Your task to perform on an android device: Open Yahoo.com Image 0: 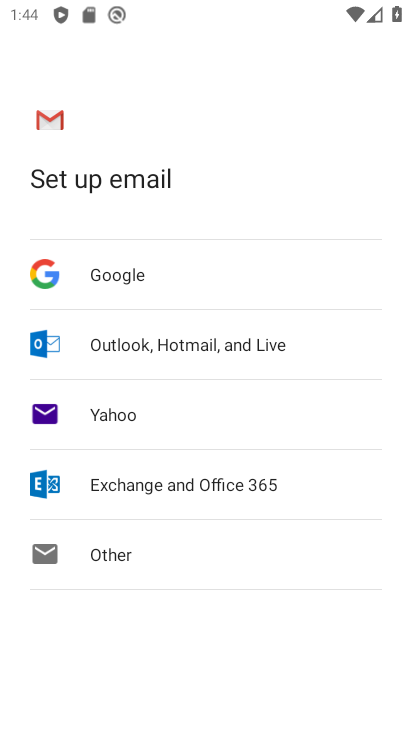
Step 0: press home button
Your task to perform on an android device: Open Yahoo.com Image 1: 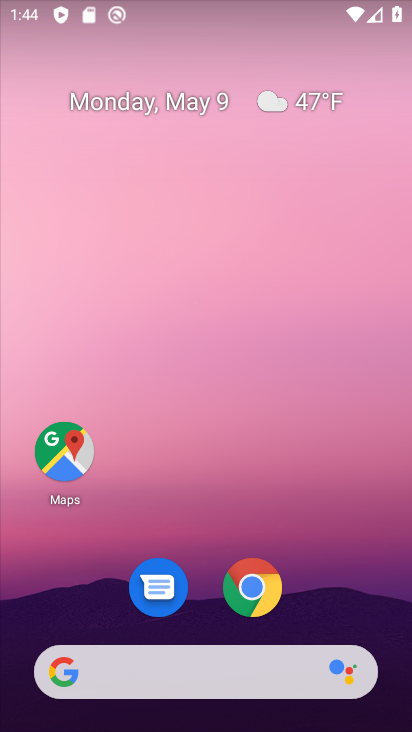
Step 1: drag from (213, 424) to (290, 41)
Your task to perform on an android device: Open Yahoo.com Image 2: 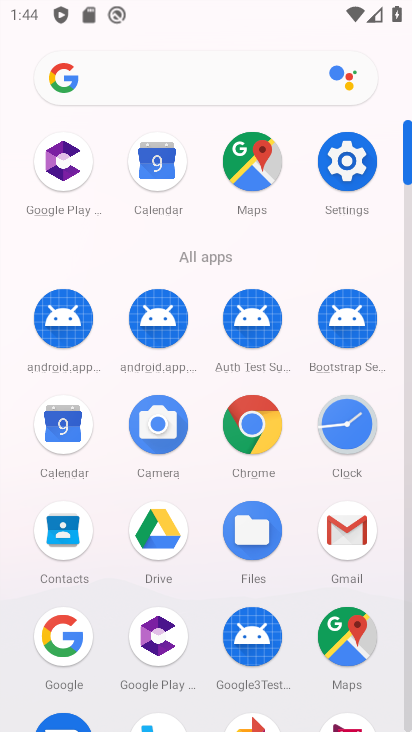
Step 2: click (253, 424)
Your task to perform on an android device: Open Yahoo.com Image 3: 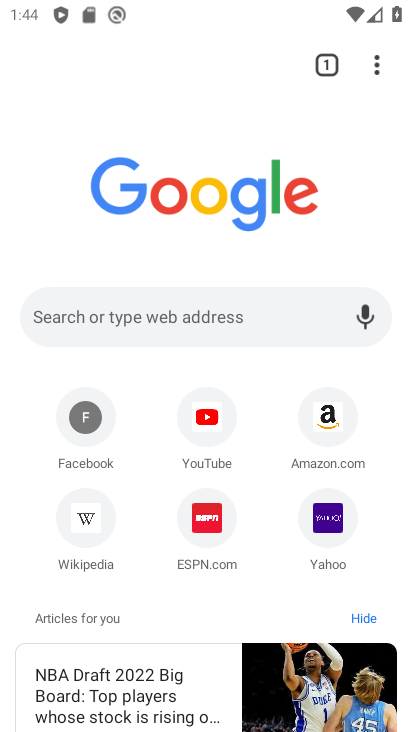
Step 3: click (323, 510)
Your task to perform on an android device: Open Yahoo.com Image 4: 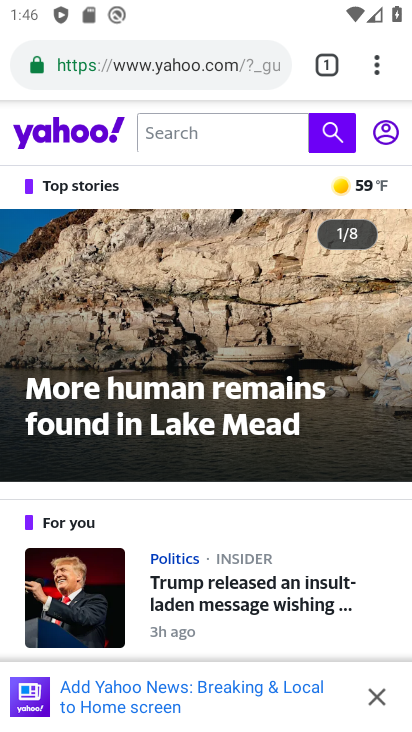
Step 4: task complete